Your task to perform on an android device: Open privacy settings Image 0: 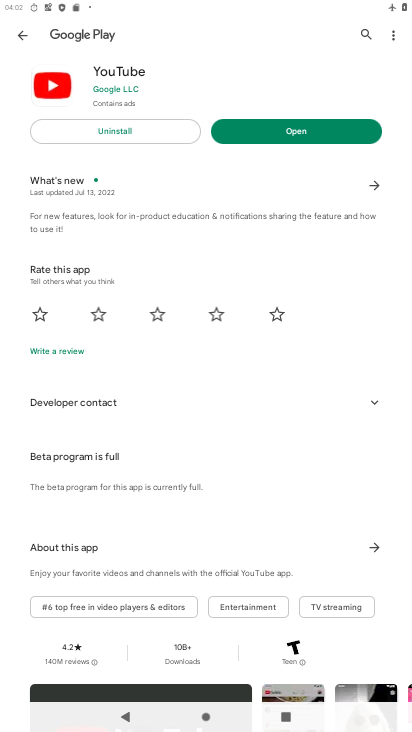
Step 0: press home button
Your task to perform on an android device: Open privacy settings Image 1: 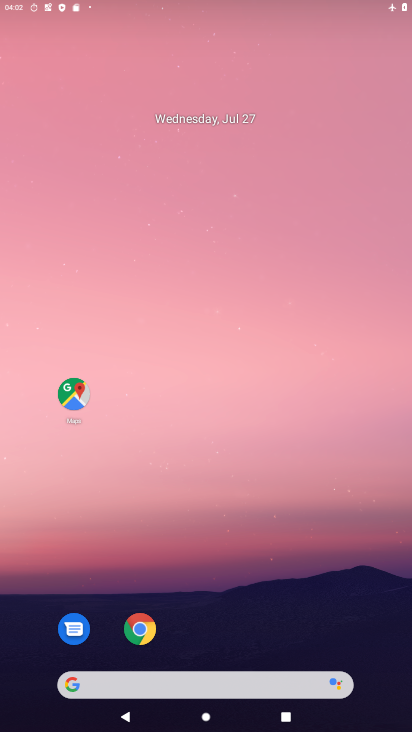
Step 1: drag from (318, 547) to (250, 51)
Your task to perform on an android device: Open privacy settings Image 2: 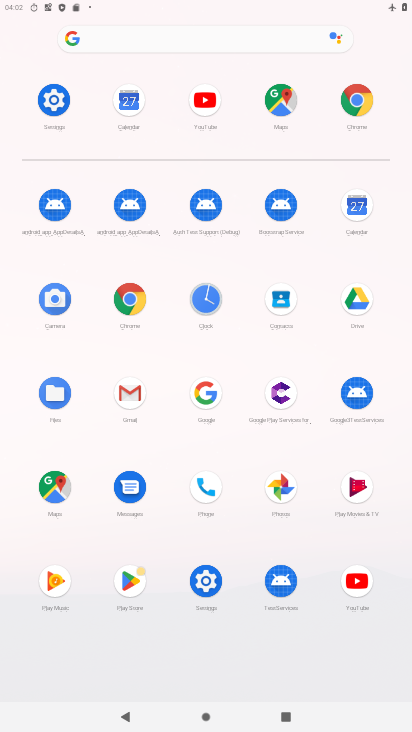
Step 2: click (65, 99)
Your task to perform on an android device: Open privacy settings Image 3: 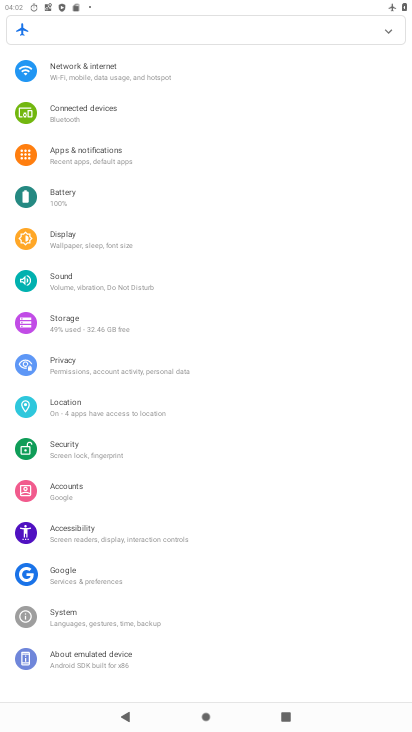
Step 3: click (93, 377)
Your task to perform on an android device: Open privacy settings Image 4: 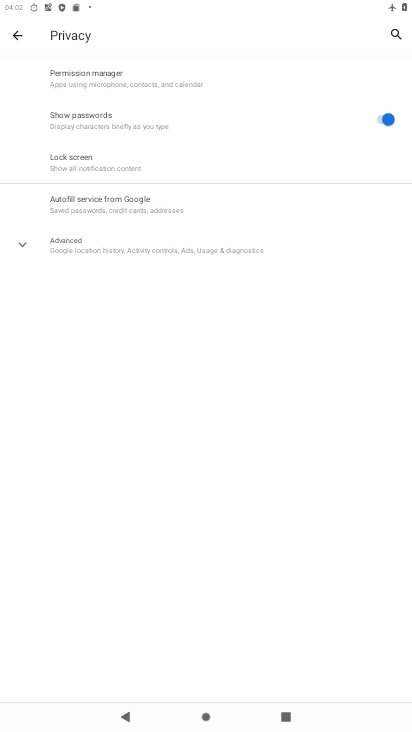
Step 4: click (227, 259)
Your task to perform on an android device: Open privacy settings Image 5: 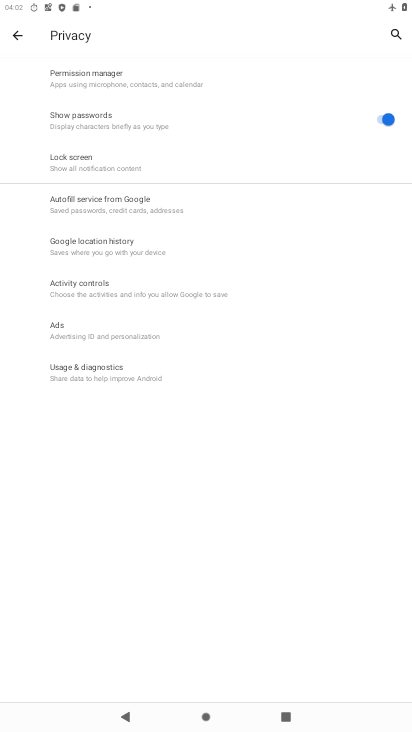
Step 5: task complete